Your task to perform on an android device: open a new tab in the chrome app Image 0: 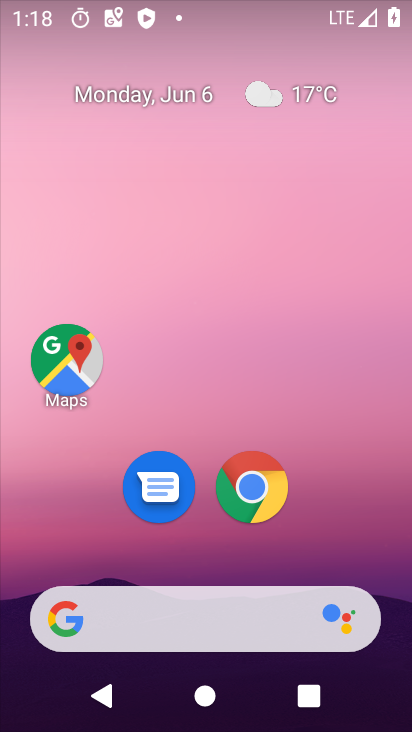
Step 0: click (262, 501)
Your task to perform on an android device: open a new tab in the chrome app Image 1: 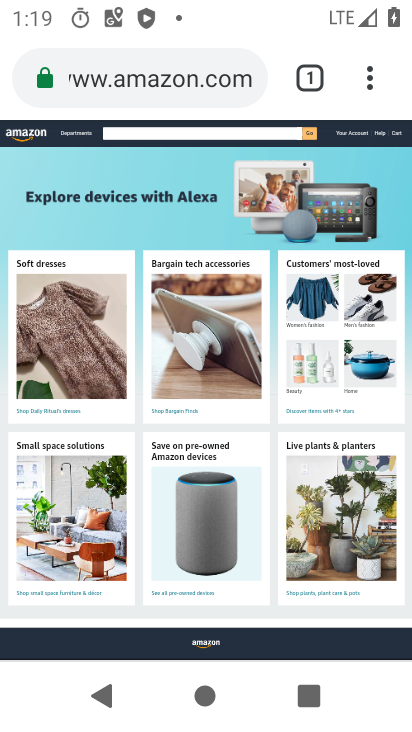
Step 1: click (306, 76)
Your task to perform on an android device: open a new tab in the chrome app Image 2: 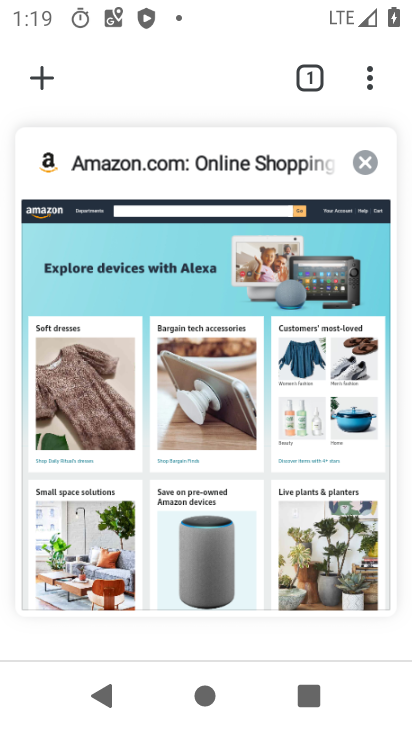
Step 2: click (56, 83)
Your task to perform on an android device: open a new tab in the chrome app Image 3: 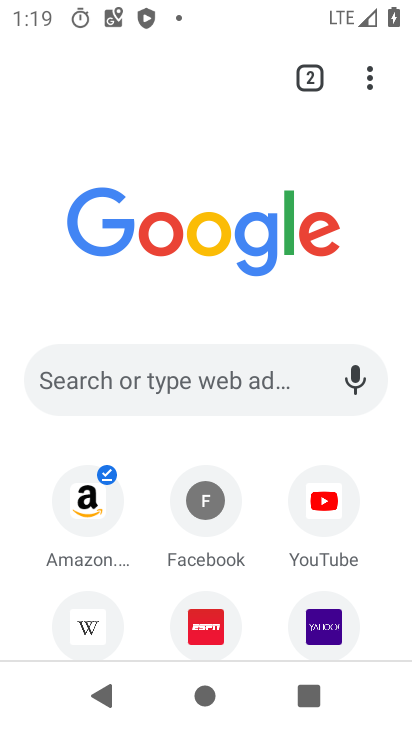
Step 3: task complete